Your task to perform on an android device: turn on data saver in the chrome app Image 0: 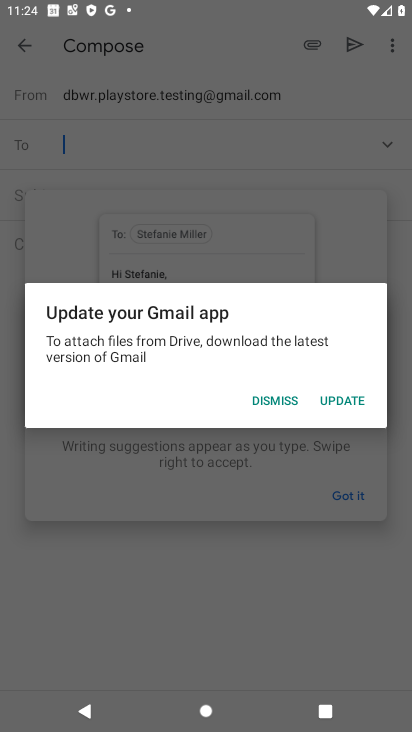
Step 0: press home button
Your task to perform on an android device: turn on data saver in the chrome app Image 1: 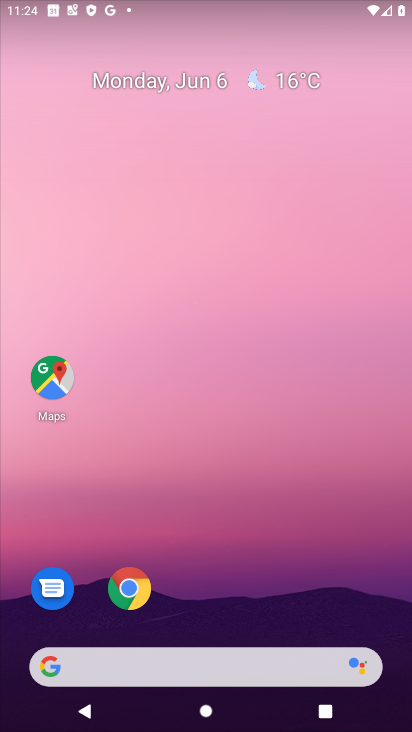
Step 1: click (130, 587)
Your task to perform on an android device: turn on data saver in the chrome app Image 2: 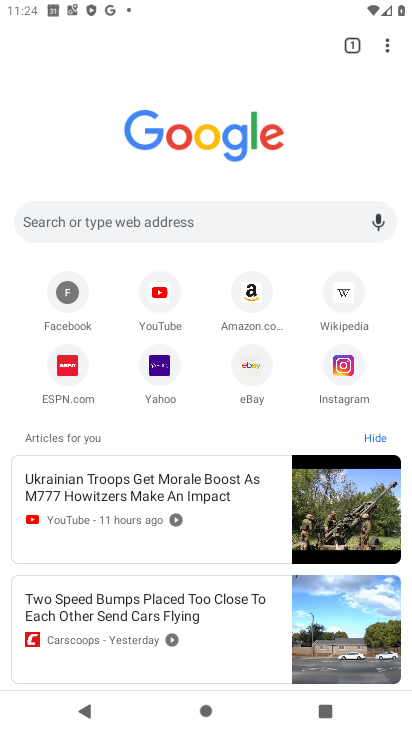
Step 2: click (376, 27)
Your task to perform on an android device: turn on data saver in the chrome app Image 3: 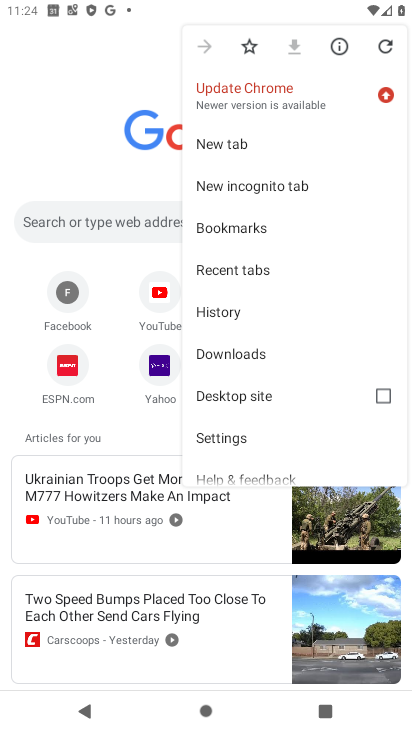
Step 3: click (227, 425)
Your task to perform on an android device: turn on data saver in the chrome app Image 4: 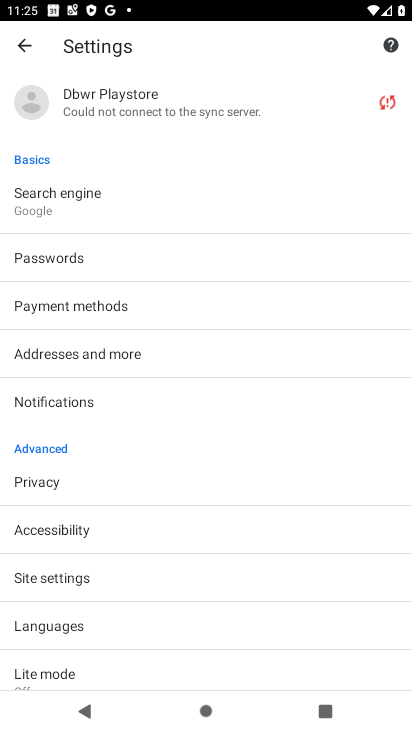
Step 4: click (88, 484)
Your task to perform on an android device: turn on data saver in the chrome app Image 5: 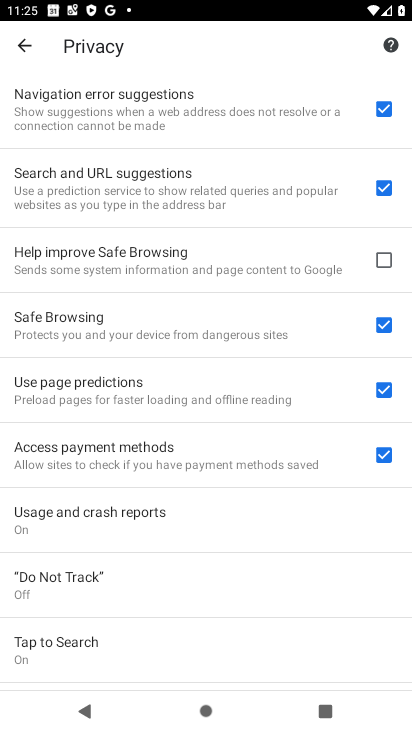
Step 5: task complete